Your task to perform on an android device: toggle wifi Image 0: 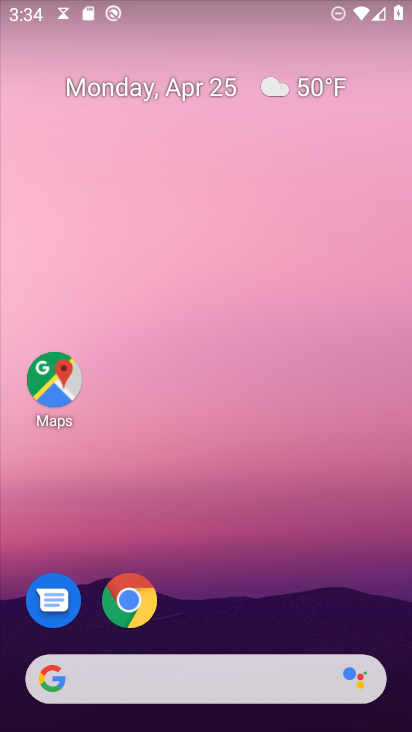
Step 0: drag from (218, 623) to (371, 100)
Your task to perform on an android device: toggle wifi Image 1: 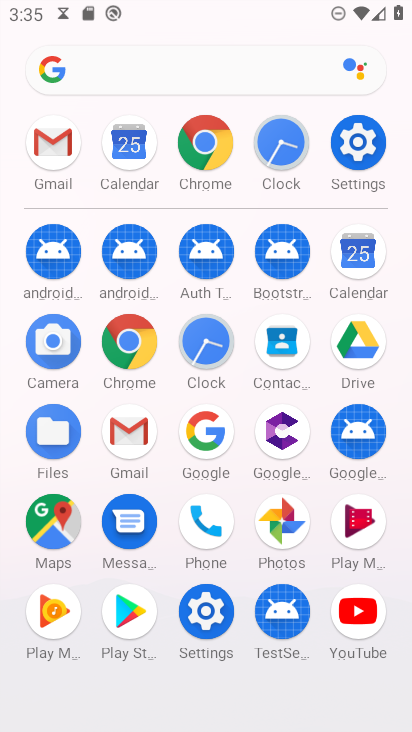
Step 1: click (212, 609)
Your task to perform on an android device: toggle wifi Image 2: 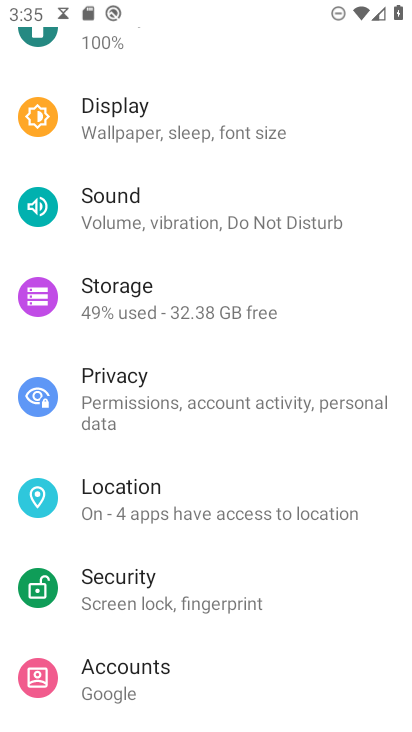
Step 2: drag from (197, 158) to (259, 683)
Your task to perform on an android device: toggle wifi Image 3: 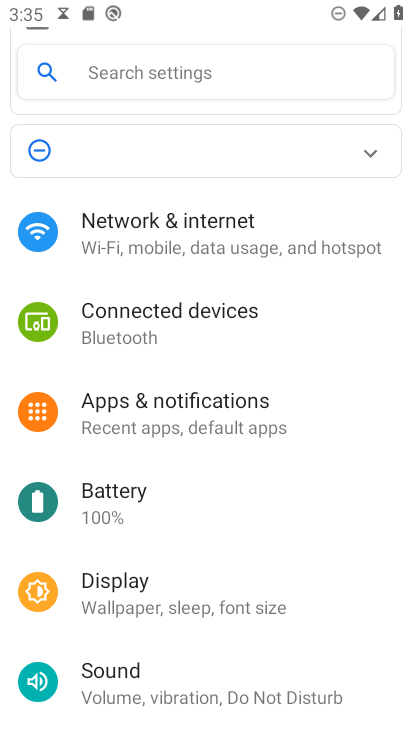
Step 3: click (210, 205)
Your task to perform on an android device: toggle wifi Image 4: 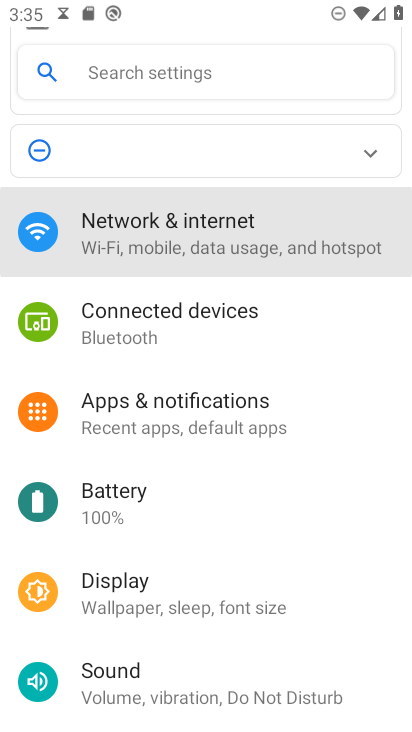
Step 4: click (210, 205)
Your task to perform on an android device: toggle wifi Image 5: 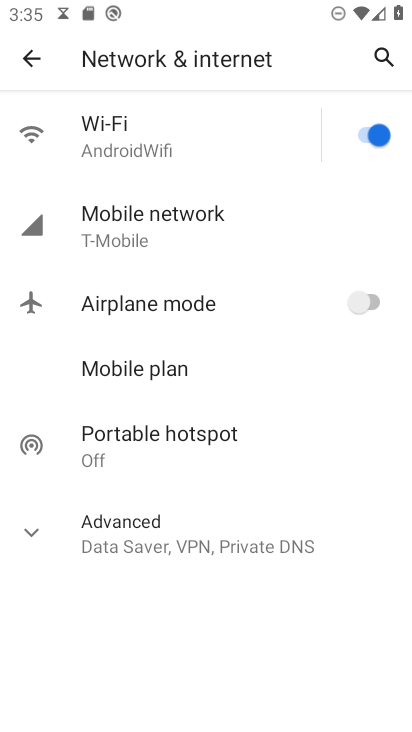
Step 5: click (142, 125)
Your task to perform on an android device: toggle wifi Image 6: 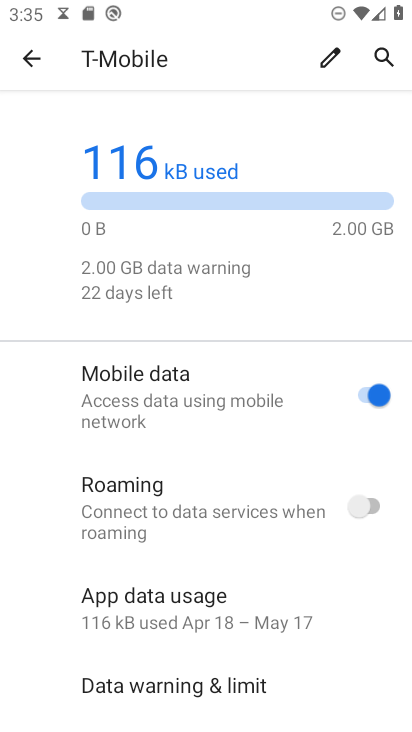
Step 6: click (23, 62)
Your task to perform on an android device: toggle wifi Image 7: 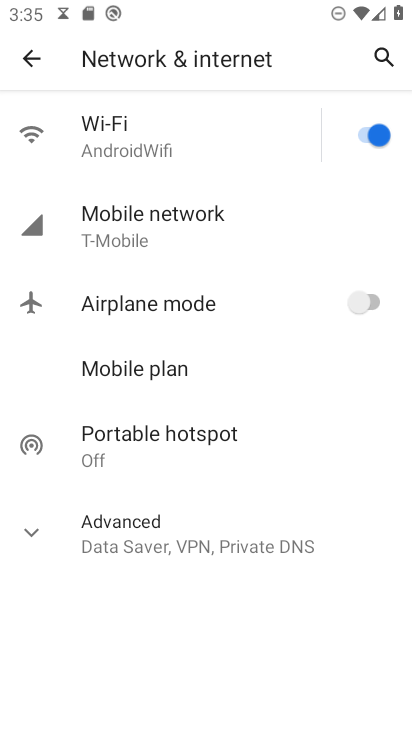
Step 7: click (359, 129)
Your task to perform on an android device: toggle wifi Image 8: 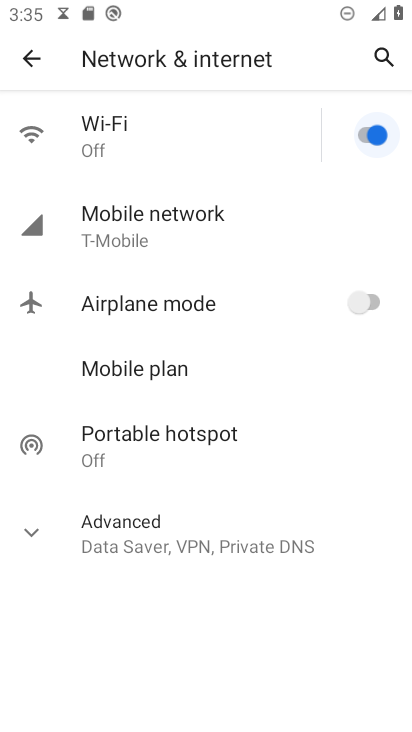
Step 8: task complete